Your task to perform on an android device: turn notification dots on Image 0: 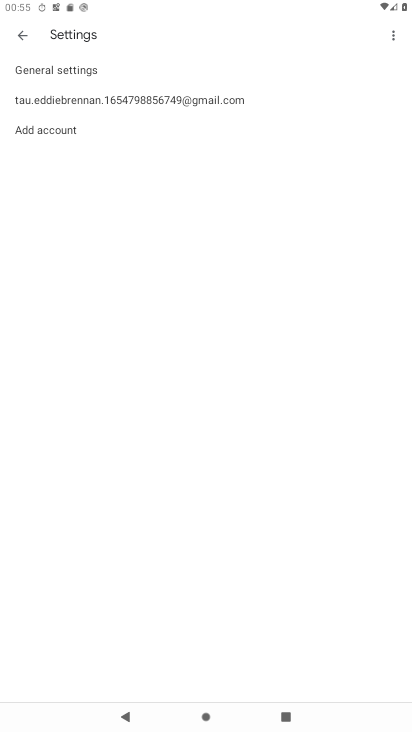
Step 0: press home button
Your task to perform on an android device: turn notification dots on Image 1: 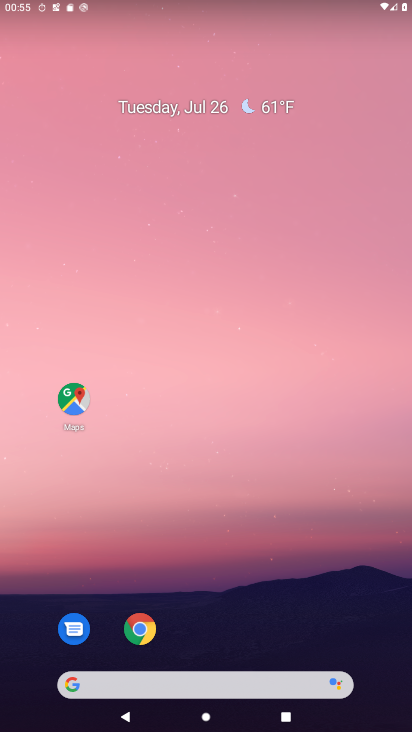
Step 1: drag from (225, 637) to (224, 175)
Your task to perform on an android device: turn notification dots on Image 2: 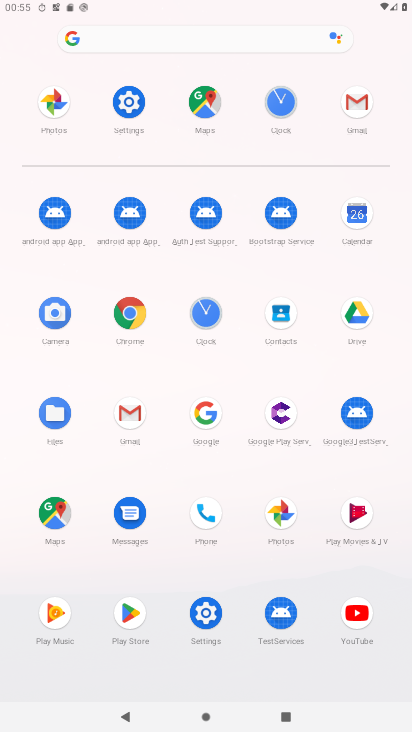
Step 2: click (151, 113)
Your task to perform on an android device: turn notification dots on Image 3: 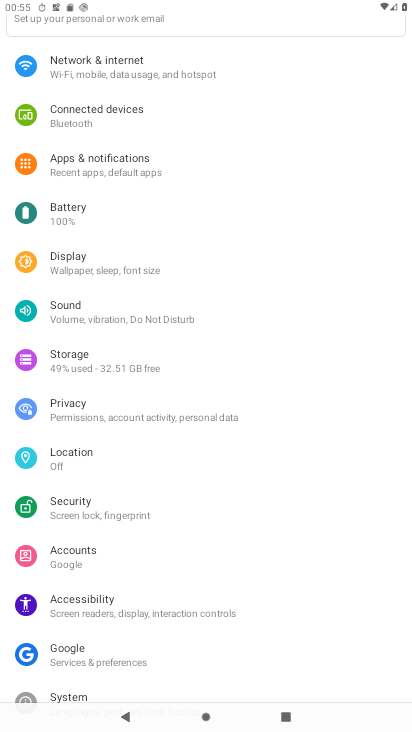
Step 3: click (141, 165)
Your task to perform on an android device: turn notification dots on Image 4: 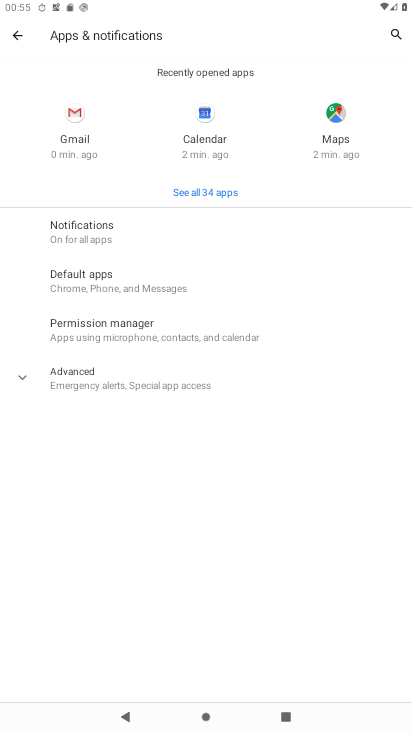
Step 4: click (136, 236)
Your task to perform on an android device: turn notification dots on Image 5: 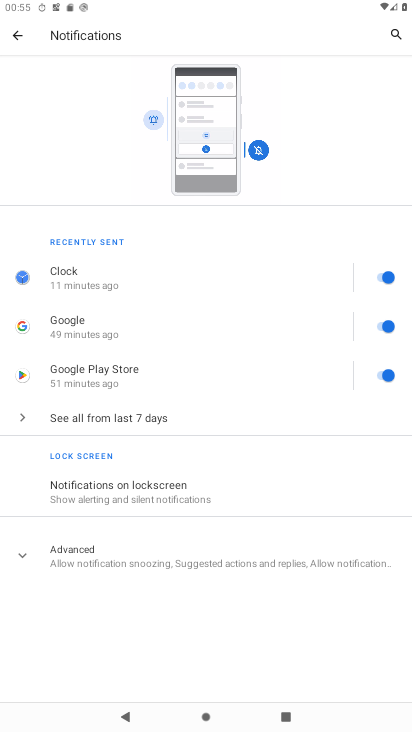
Step 5: click (209, 556)
Your task to perform on an android device: turn notification dots on Image 6: 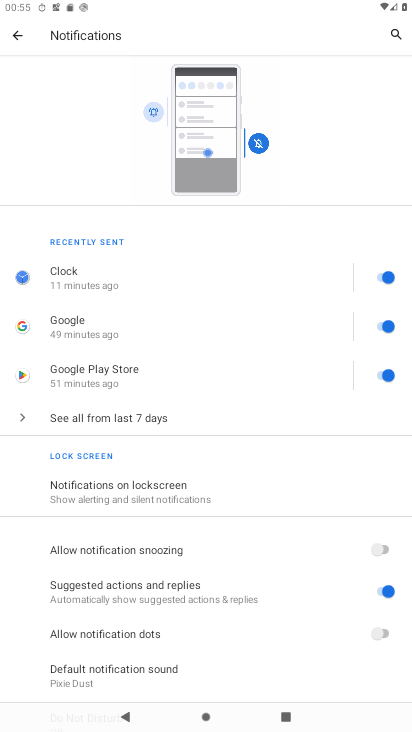
Step 6: click (395, 626)
Your task to perform on an android device: turn notification dots on Image 7: 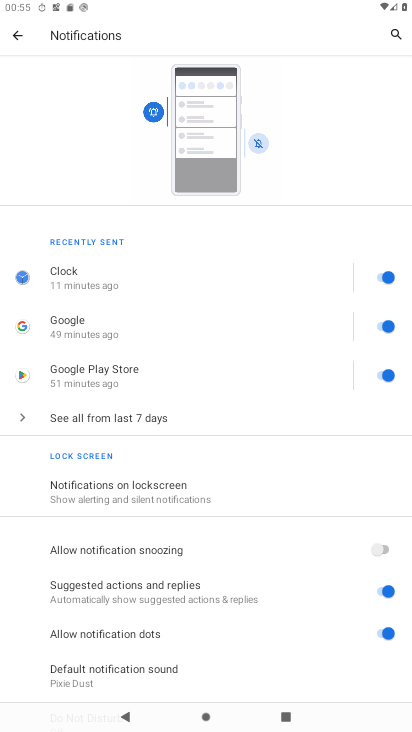
Step 7: task complete